Your task to perform on an android device: Is it going to rain today? Image 0: 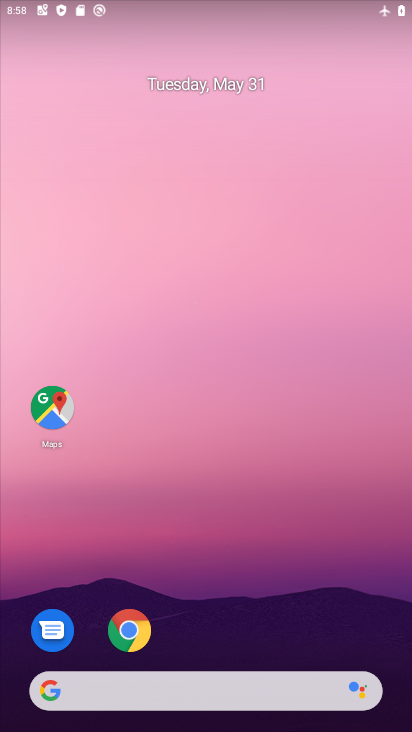
Step 0: drag from (240, 638) to (297, 150)
Your task to perform on an android device: Is it going to rain today? Image 1: 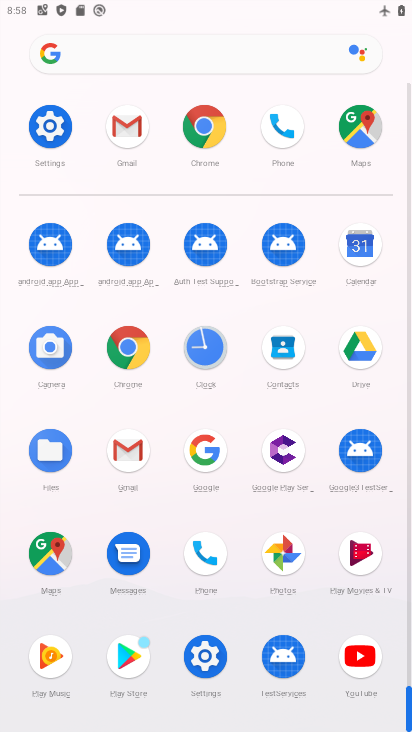
Step 1: click (203, 113)
Your task to perform on an android device: Is it going to rain today? Image 2: 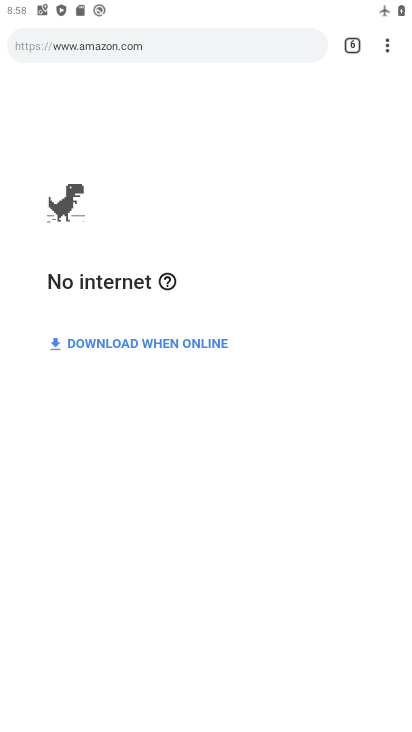
Step 2: click (158, 47)
Your task to perform on an android device: Is it going to rain today? Image 3: 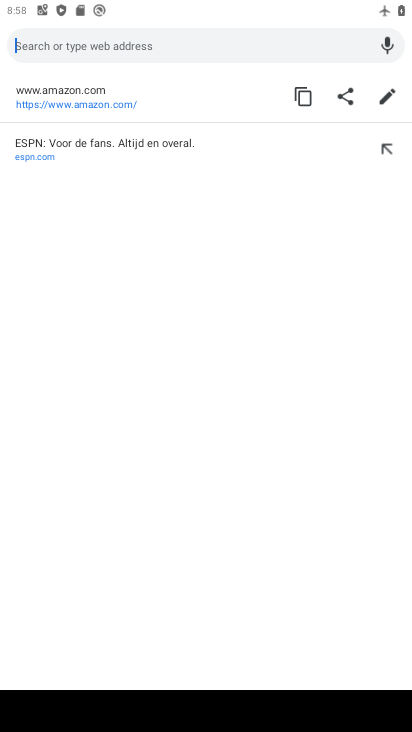
Step 3: click (160, 45)
Your task to perform on an android device: Is it going to rain today? Image 4: 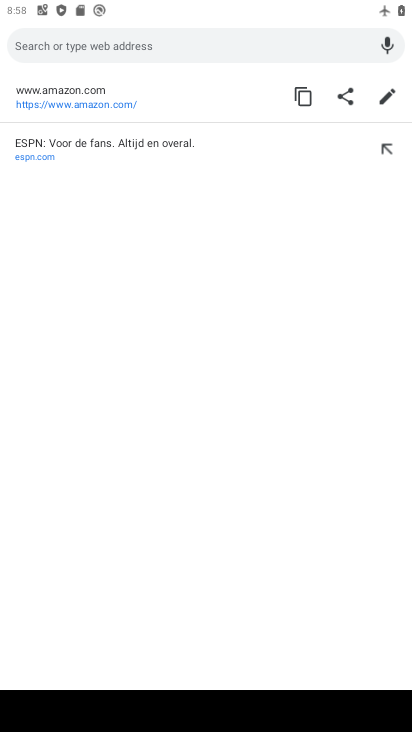
Step 4: type "Is it going to rain today?"
Your task to perform on an android device: Is it going to rain today? Image 5: 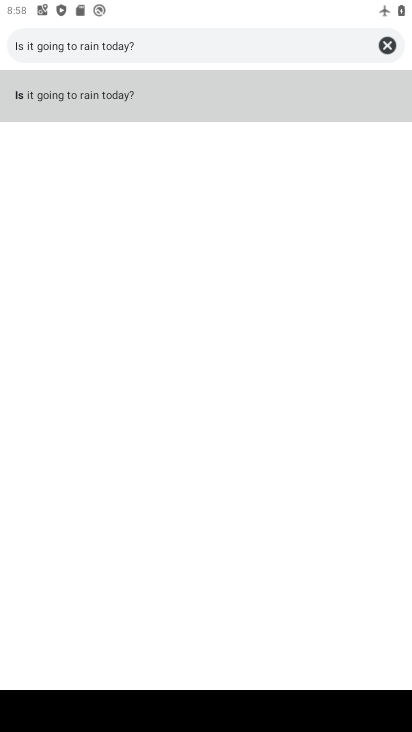
Step 5: click (189, 78)
Your task to perform on an android device: Is it going to rain today? Image 6: 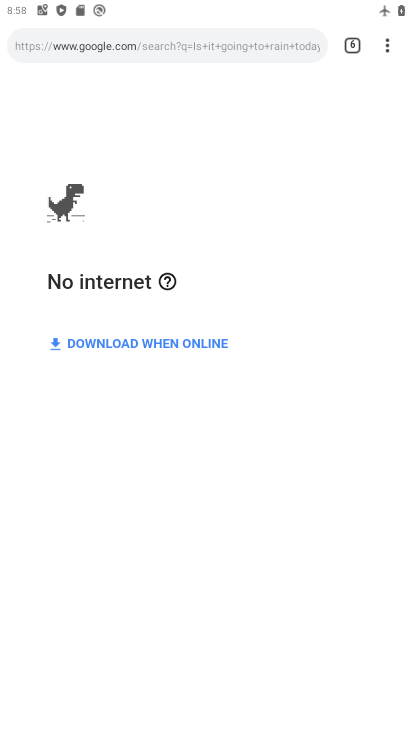
Step 6: task complete